Your task to perform on an android device: search for starred emails in the gmail app Image 0: 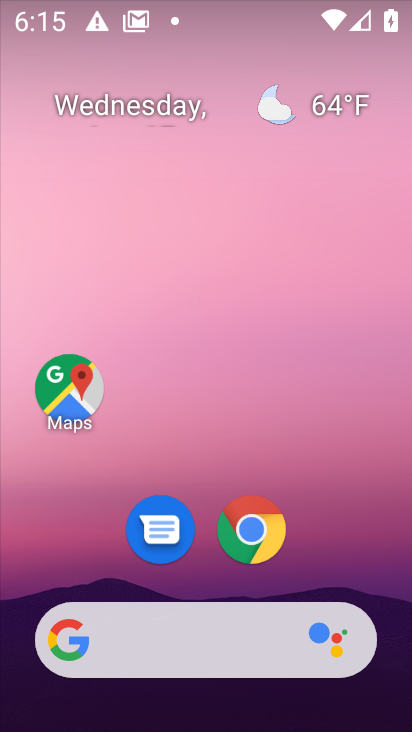
Step 0: drag from (192, 545) to (201, 237)
Your task to perform on an android device: search for starred emails in the gmail app Image 1: 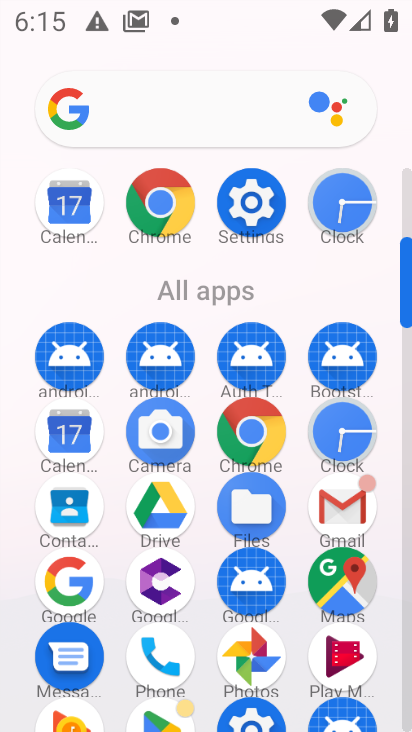
Step 1: click (345, 508)
Your task to perform on an android device: search for starred emails in the gmail app Image 2: 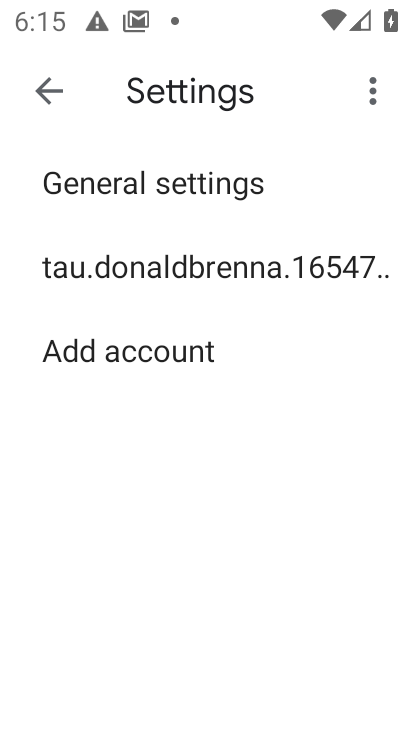
Step 2: click (43, 74)
Your task to perform on an android device: search for starred emails in the gmail app Image 3: 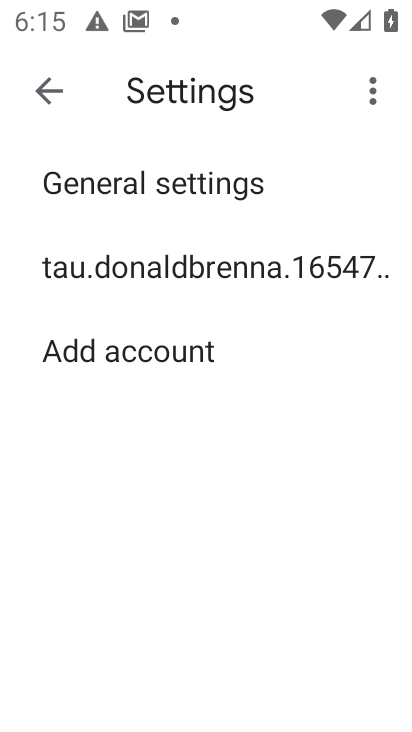
Step 3: click (49, 87)
Your task to perform on an android device: search for starred emails in the gmail app Image 4: 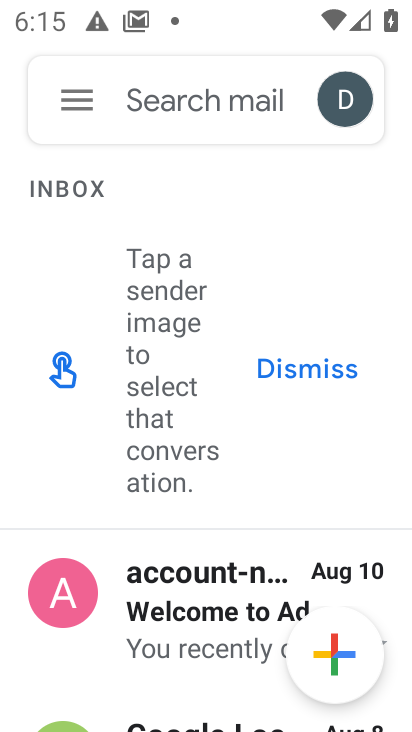
Step 4: click (75, 112)
Your task to perform on an android device: search for starred emails in the gmail app Image 5: 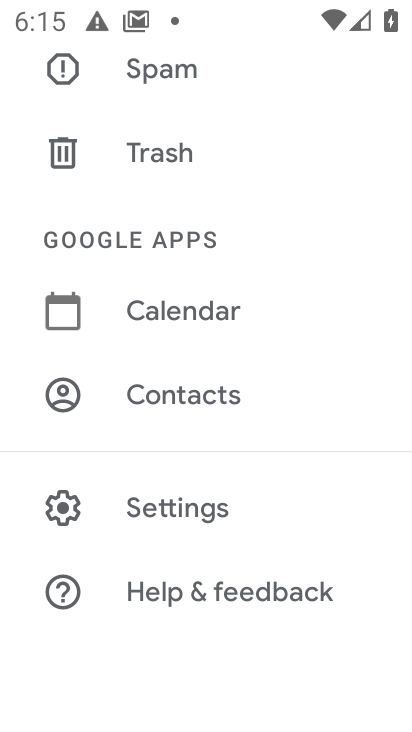
Step 5: drag from (234, 267) to (266, 574)
Your task to perform on an android device: search for starred emails in the gmail app Image 6: 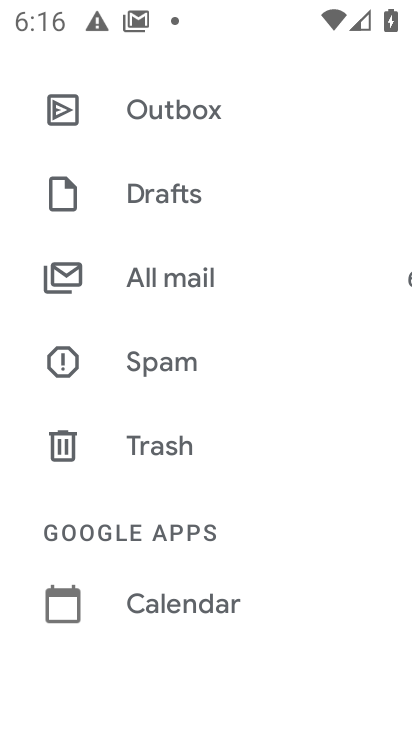
Step 6: drag from (216, 195) to (214, 584)
Your task to perform on an android device: search for starred emails in the gmail app Image 7: 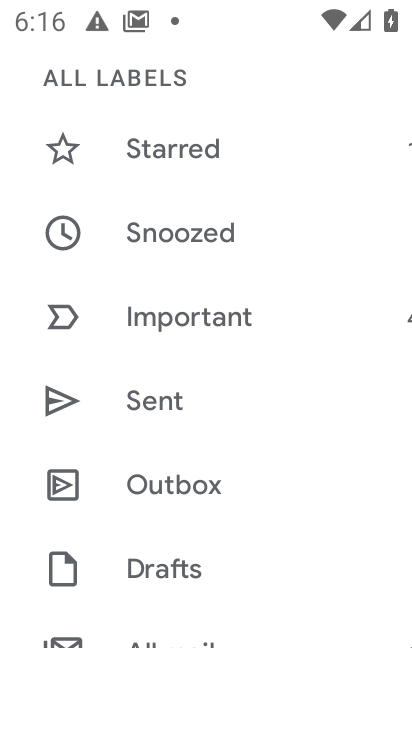
Step 7: click (162, 263)
Your task to perform on an android device: search for starred emails in the gmail app Image 8: 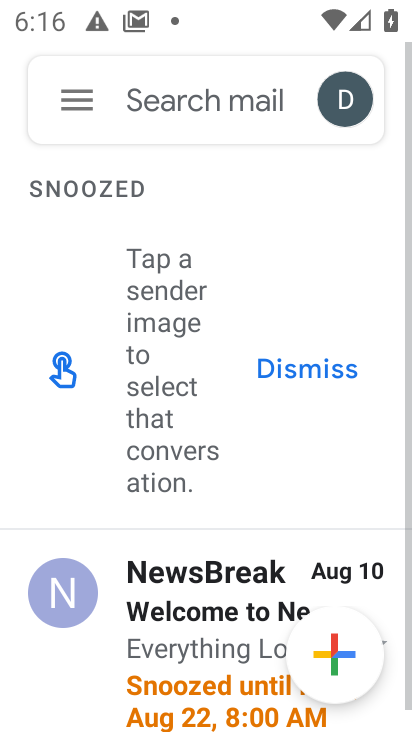
Step 8: press back button
Your task to perform on an android device: search for starred emails in the gmail app Image 9: 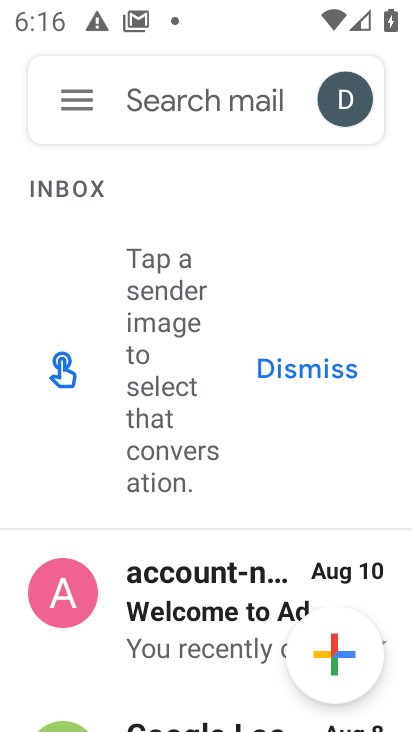
Step 9: click (72, 95)
Your task to perform on an android device: search for starred emails in the gmail app Image 10: 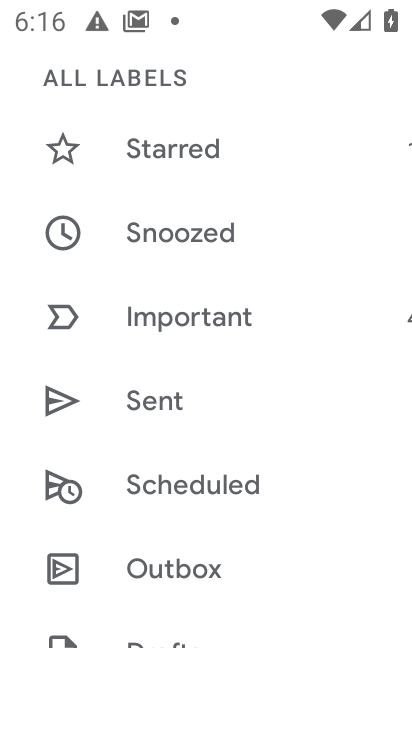
Step 10: click (179, 149)
Your task to perform on an android device: search for starred emails in the gmail app Image 11: 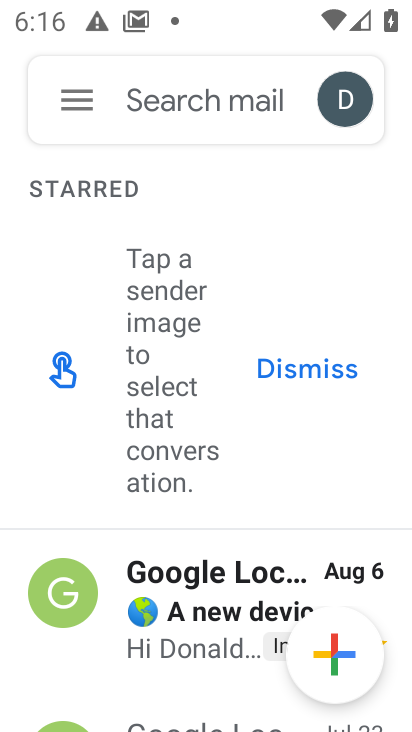
Step 11: task complete